Your task to perform on an android device: uninstall "Reddit" Image 0: 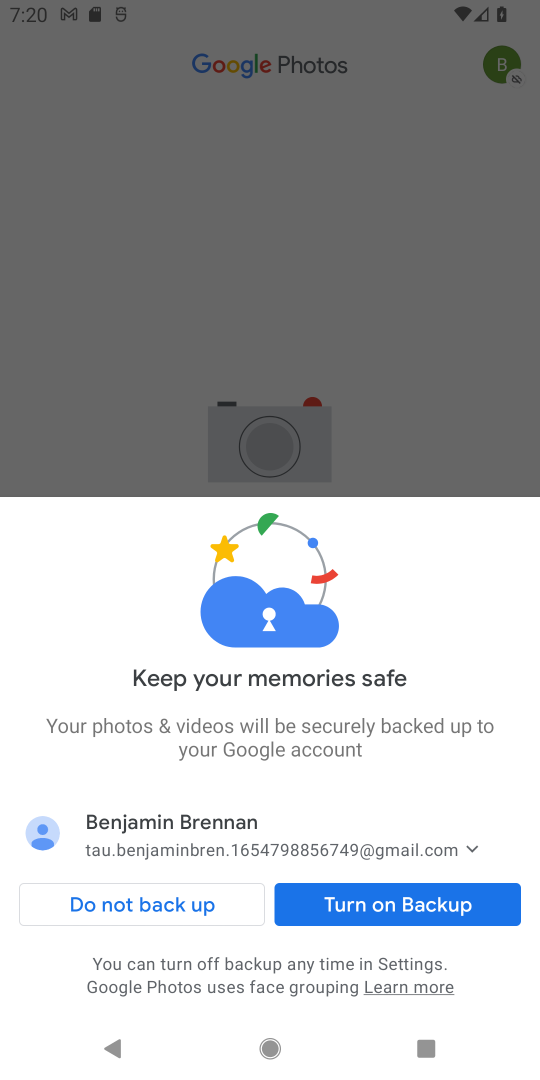
Step 0: press home button
Your task to perform on an android device: uninstall "Reddit" Image 1: 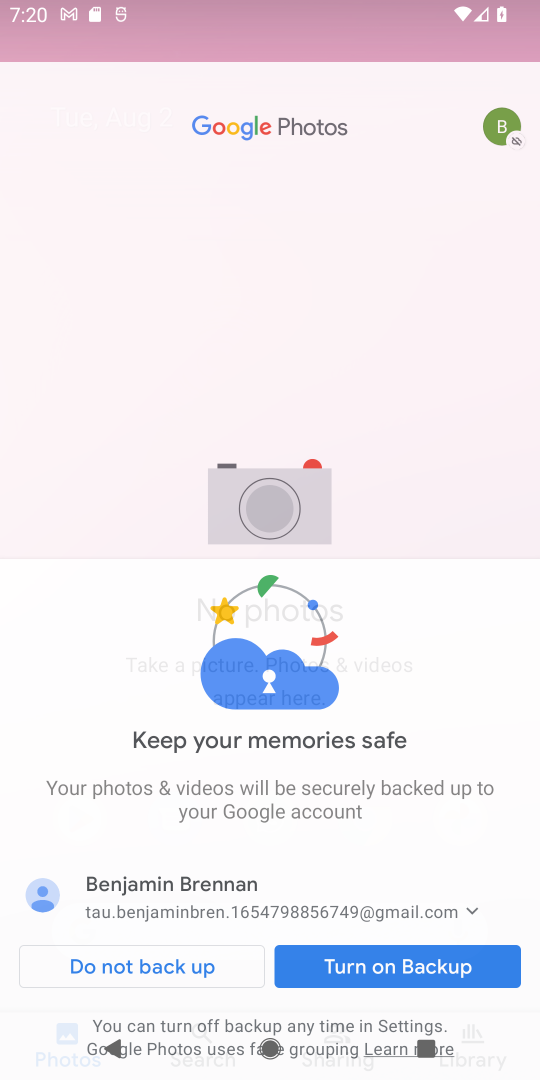
Step 1: drag from (311, 794) to (407, 244)
Your task to perform on an android device: uninstall "Reddit" Image 2: 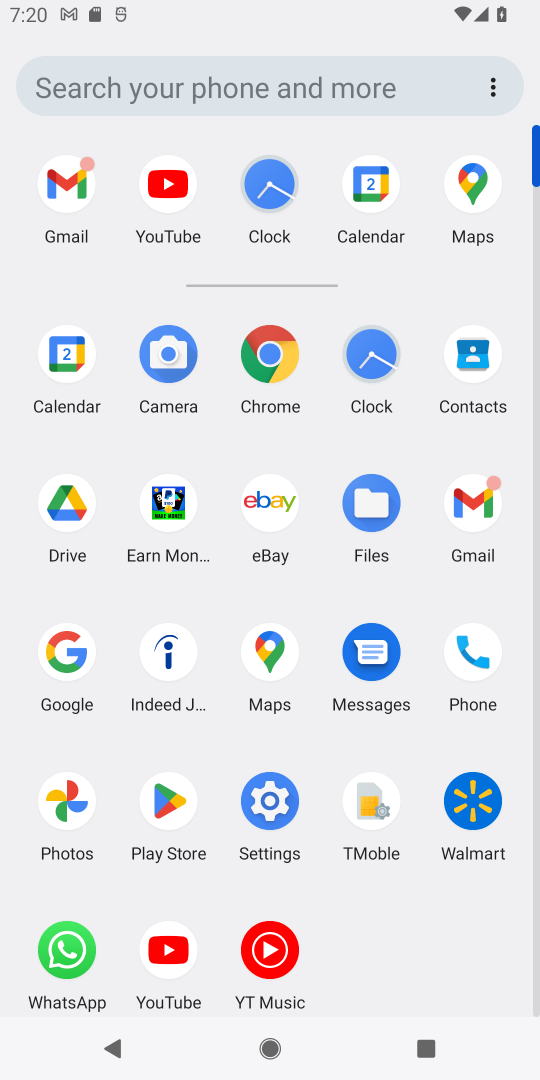
Step 2: click (170, 802)
Your task to perform on an android device: uninstall "Reddit" Image 3: 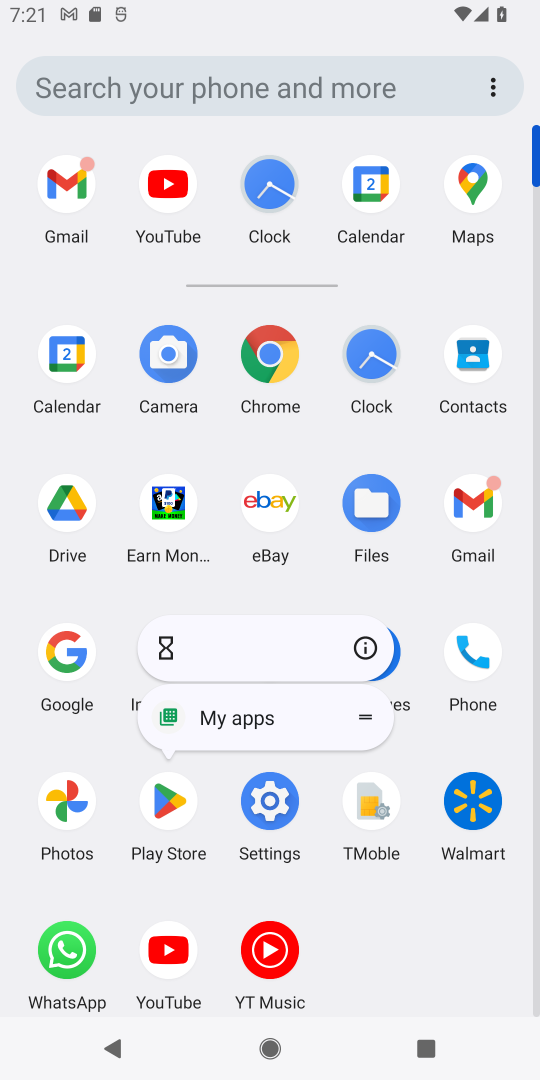
Step 3: click (366, 656)
Your task to perform on an android device: uninstall "Reddit" Image 4: 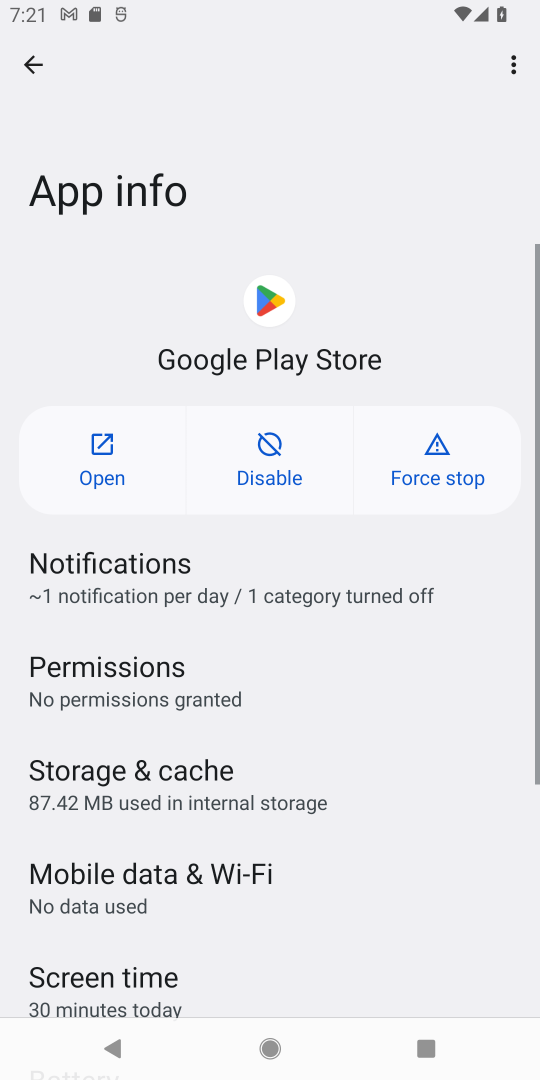
Step 4: click (102, 478)
Your task to perform on an android device: uninstall "Reddit" Image 5: 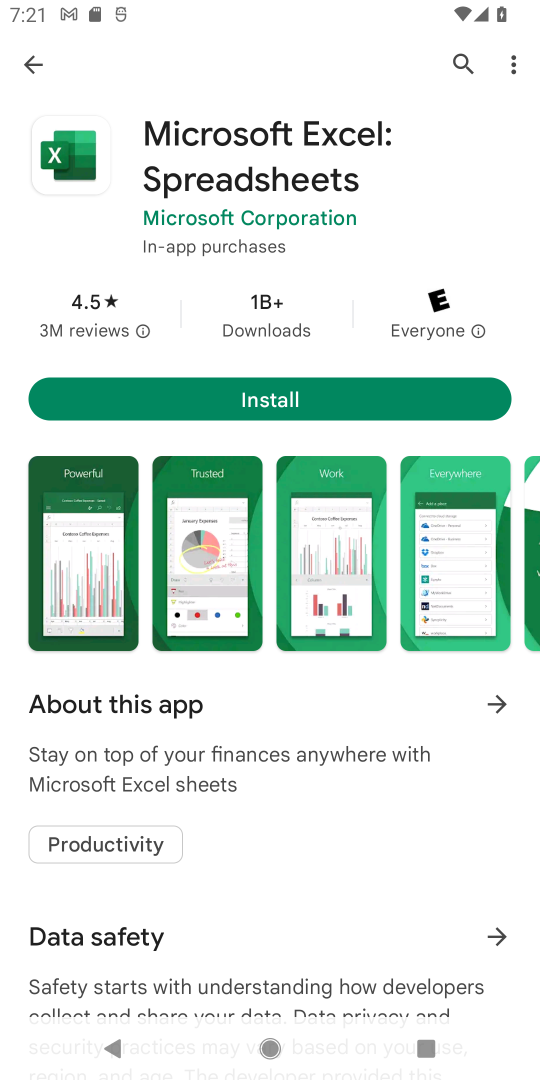
Step 5: click (482, 67)
Your task to perform on an android device: uninstall "Reddit" Image 6: 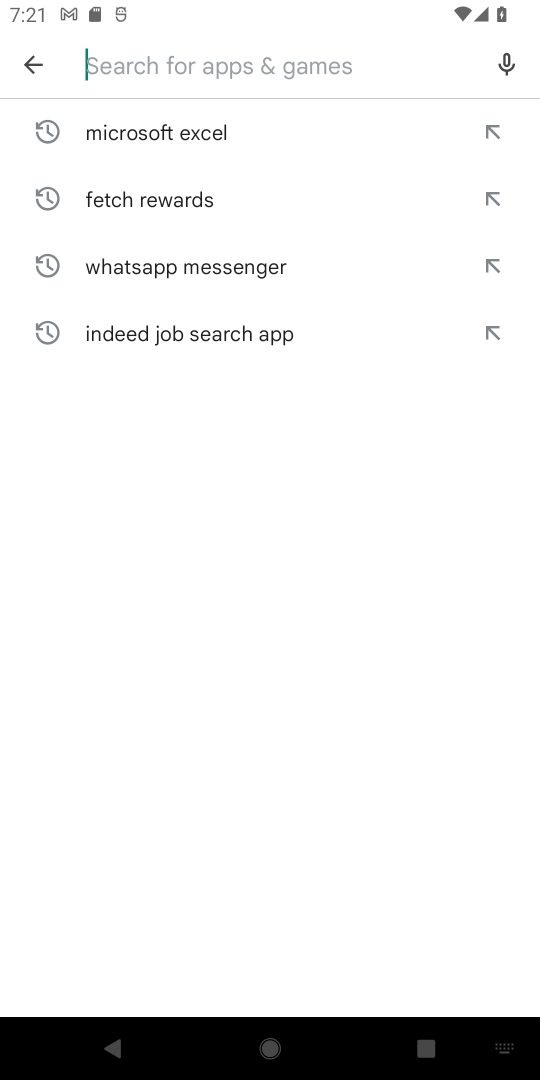
Step 6: type "Reddit"
Your task to perform on an android device: uninstall "Reddit" Image 7: 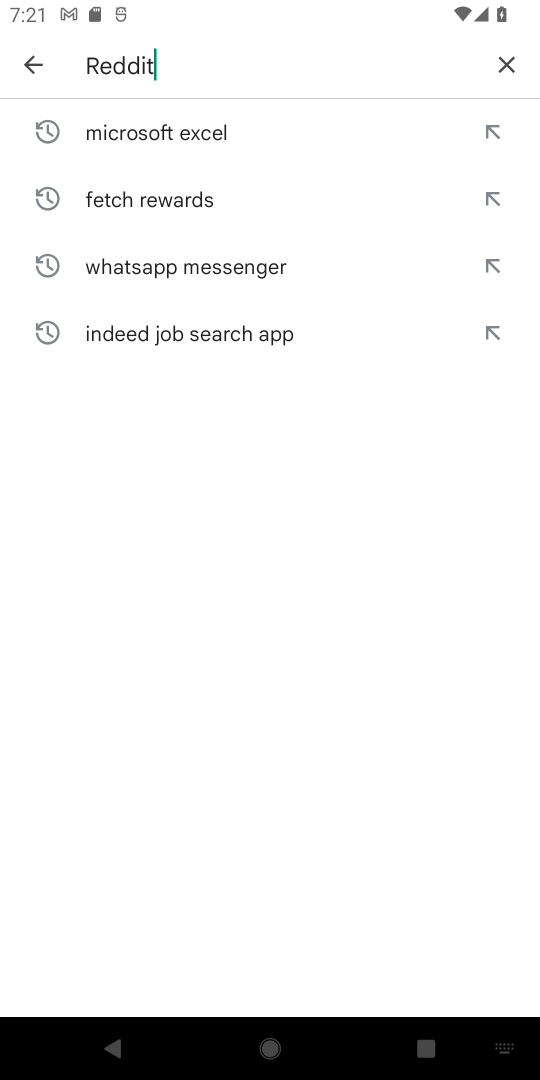
Step 7: type ""
Your task to perform on an android device: uninstall "Reddit" Image 8: 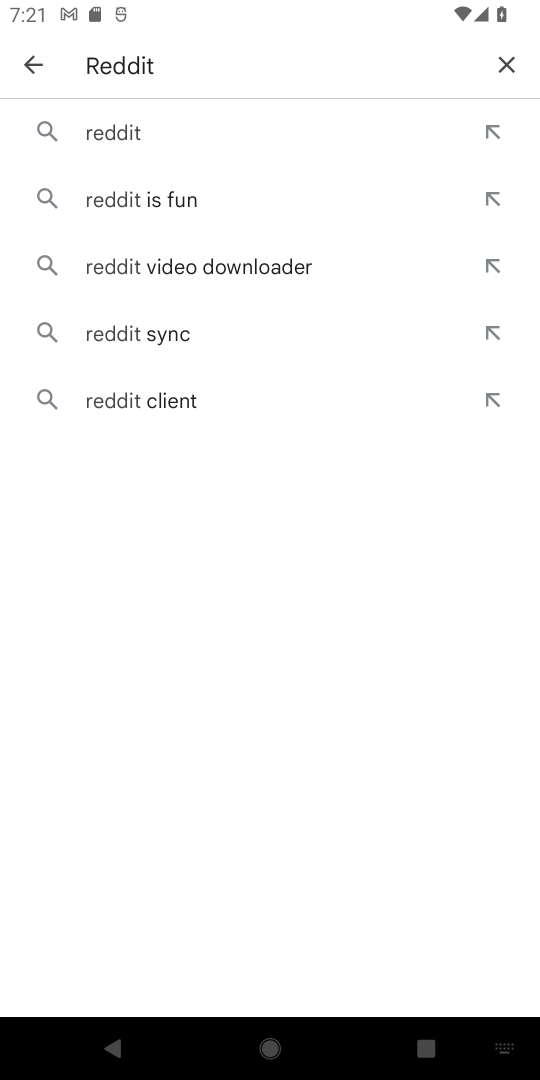
Step 8: click (132, 132)
Your task to perform on an android device: uninstall "Reddit" Image 9: 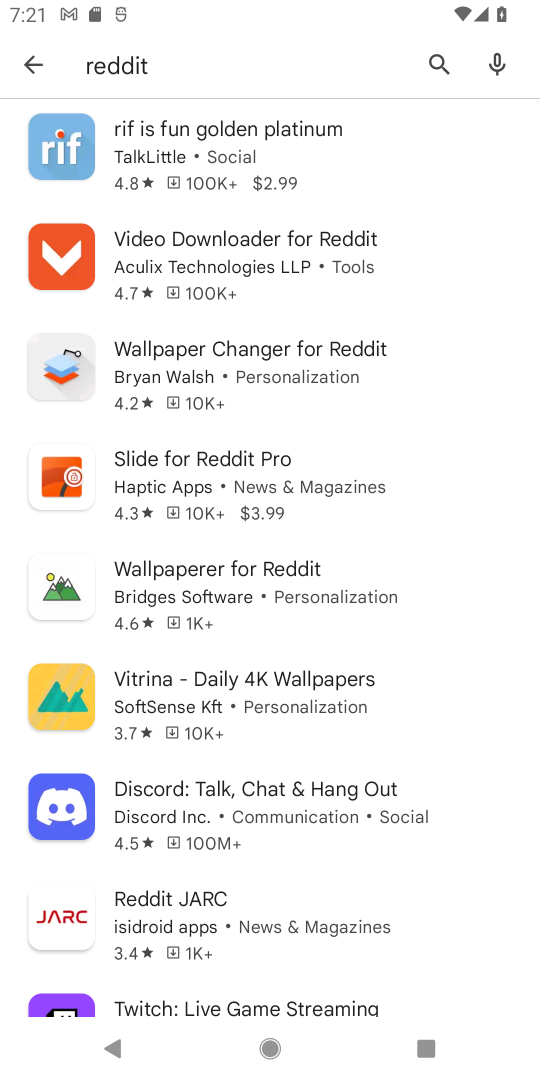
Step 9: task complete